Your task to perform on an android device: Check the weather Image 0: 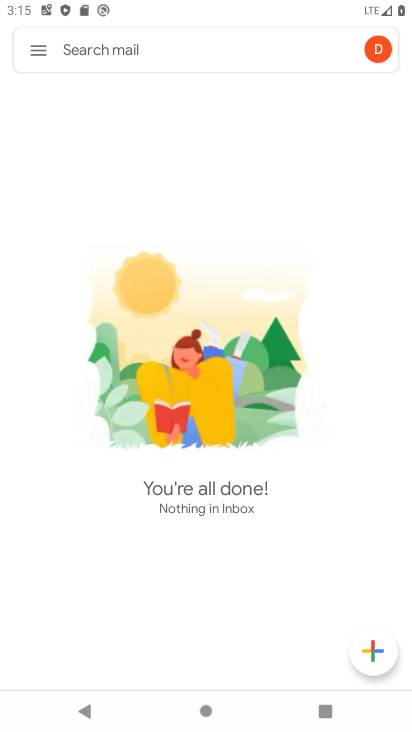
Step 0: press home button
Your task to perform on an android device: Check the weather Image 1: 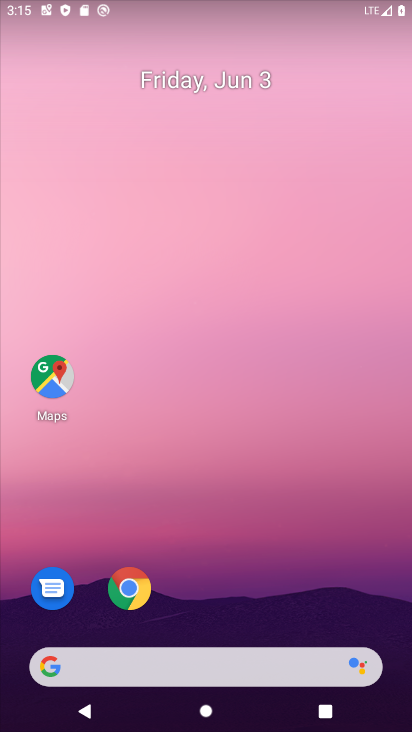
Step 1: click (122, 674)
Your task to perform on an android device: Check the weather Image 2: 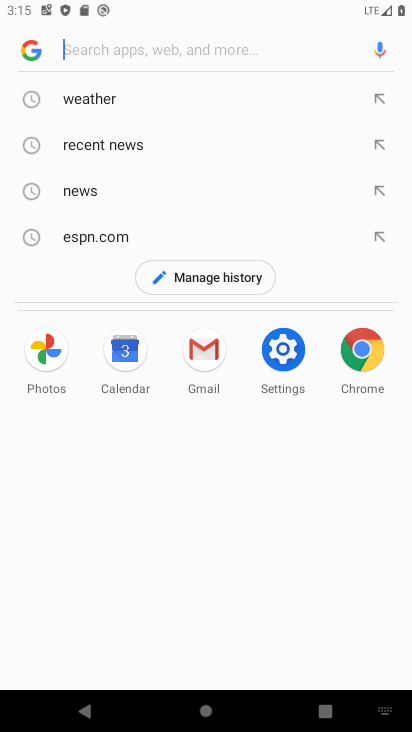
Step 2: click (99, 98)
Your task to perform on an android device: Check the weather Image 3: 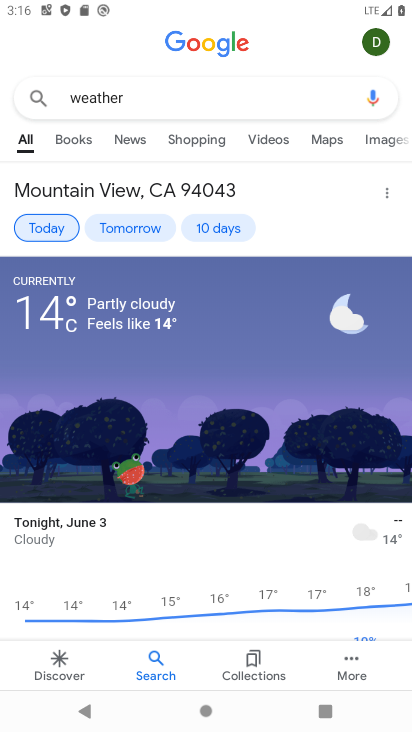
Step 3: task complete